Your task to perform on an android device: What's on my calendar tomorrow? Image 0: 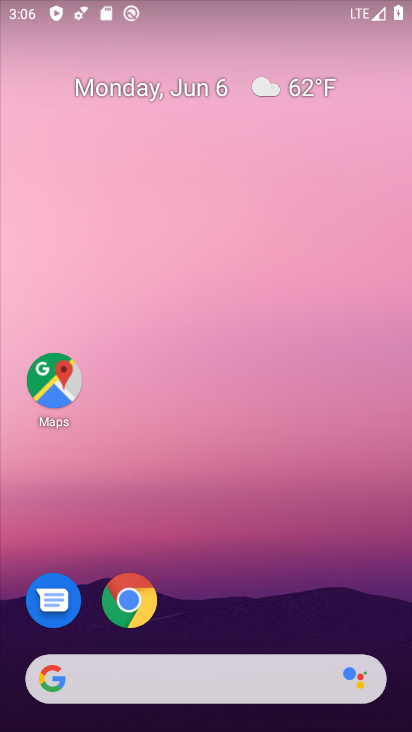
Step 0: drag from (269, 579) to (206, 58)
Your task to perform on an android device: What's on my calendar tomorrow? Image 1: 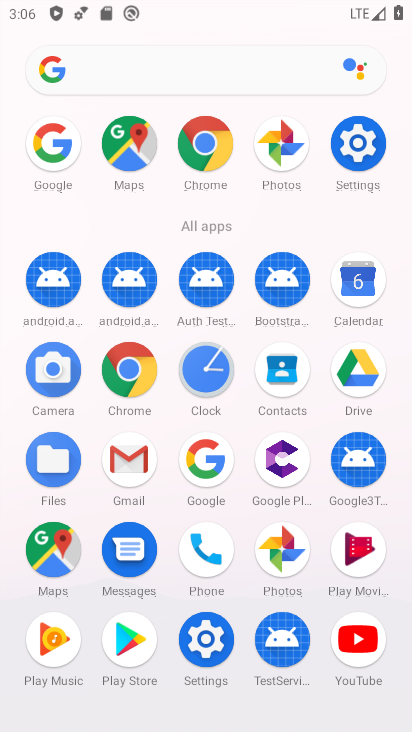
Step 1: click (361, 280)
Your task to perform on an android device: What's on my calendar tomorrow? Image 2: 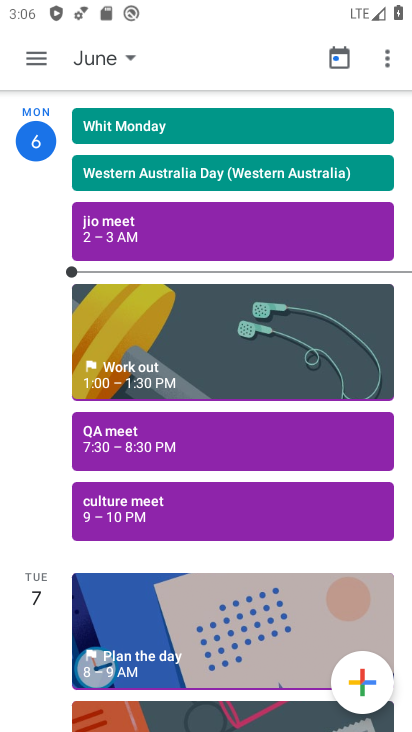
Step 2: click (341, 59)
Your task to perform on an android device: What's on my calendar tomorrow? Image 3: 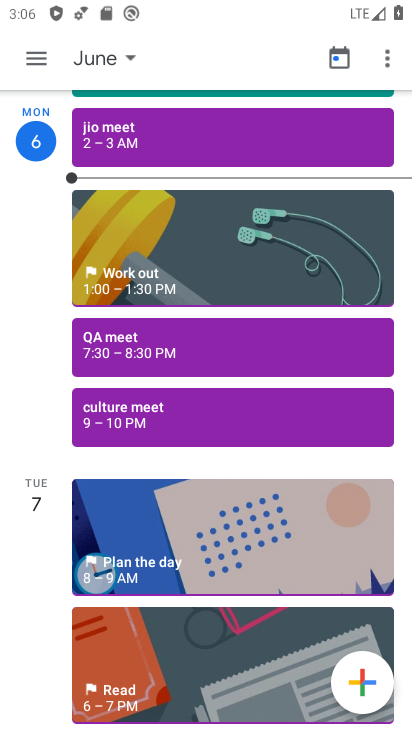
Step 3: click (128, 54)
Your task to perform on an android device: What's on my calendar tomorrow? Image 4: 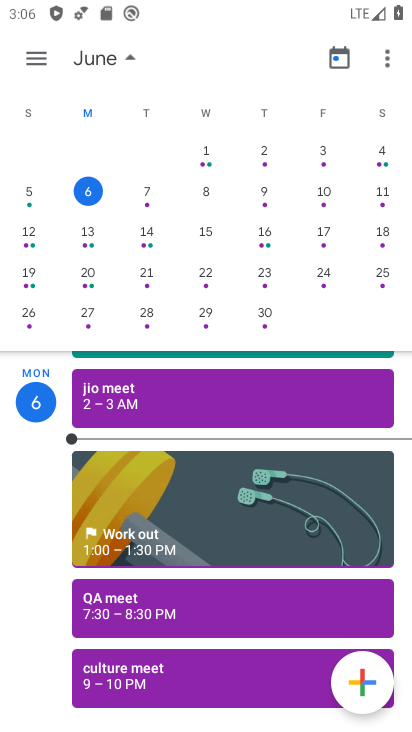
Step 4: click (142, 186)
Your task to perform on an android device: What's on my calendar tomorrow? Image 5: 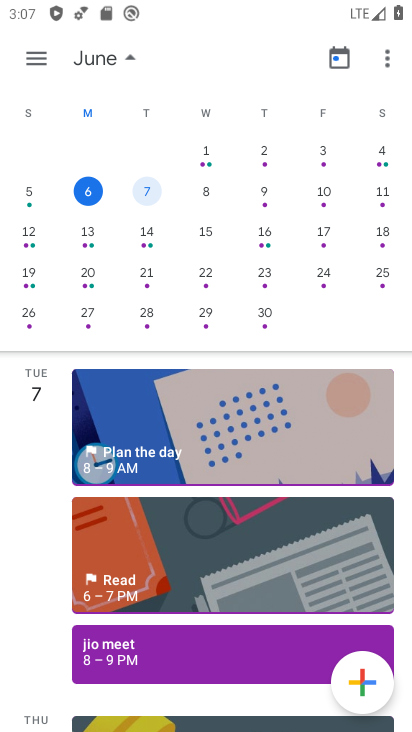
Step 5: click (42, 66)
Your task to perform on an android device: What's on my calendar tomorrow? Image 6: 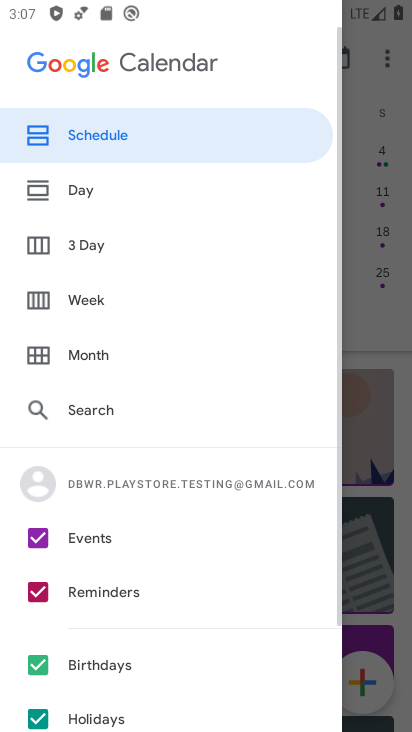
Step 6: click (71, 129)
Your task to perform on an android device: What's on my calendar tomorrow? Image 7: 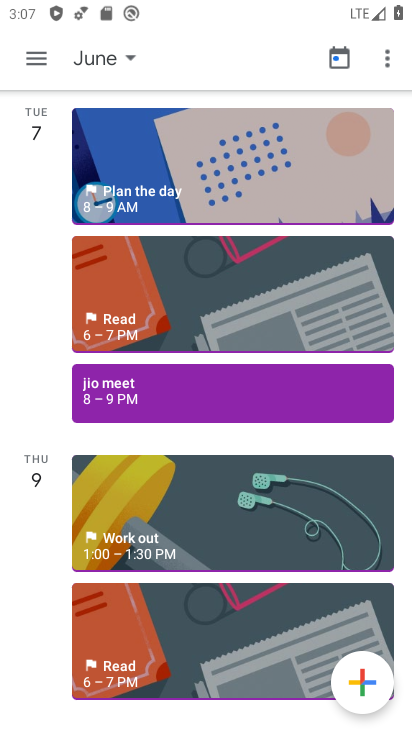
Step 7: task complete